Your task to perform on an android device: turn on location history Image 0: 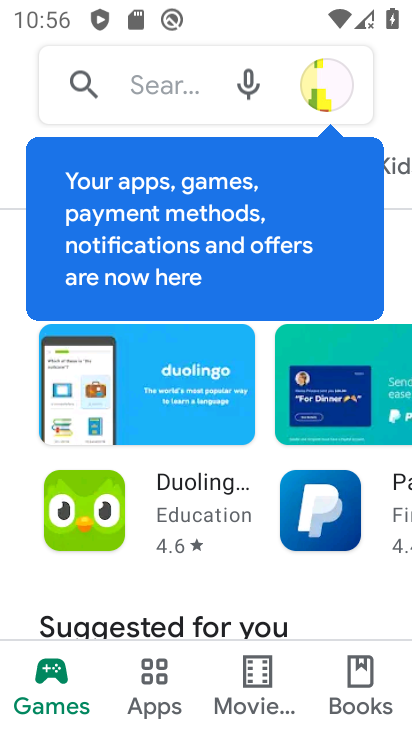
Step 0: press home button
Your task to perform on an android device: turn on location history Image 1: 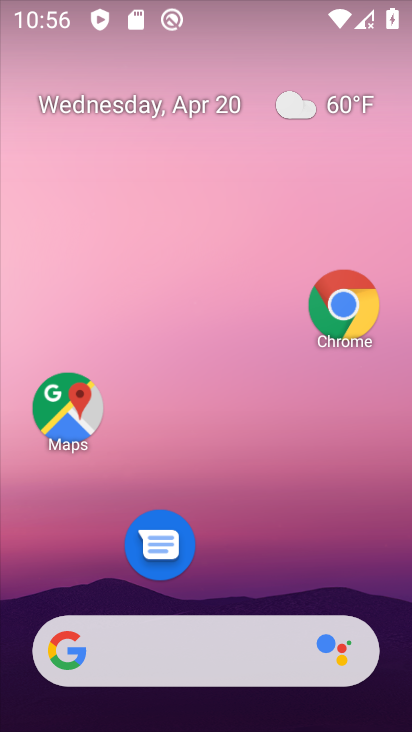
Step 1: drag from (245, 673) to (211, 205)
Your task to perform on an android device: turn on location history Image 2: 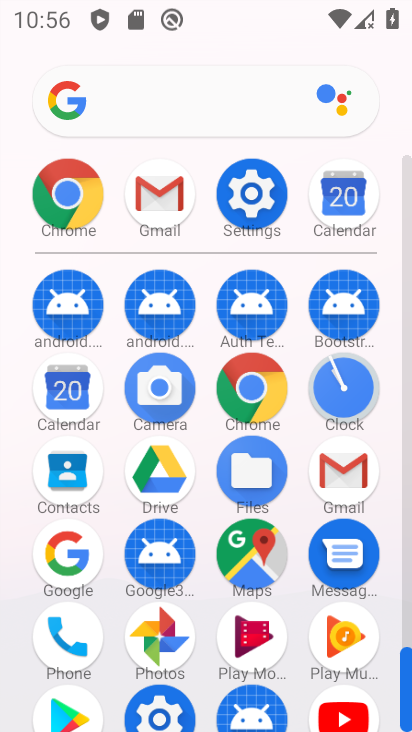
Step 2: click (252, 193)
Your task to perform on an android device: turn on location history Image 3: 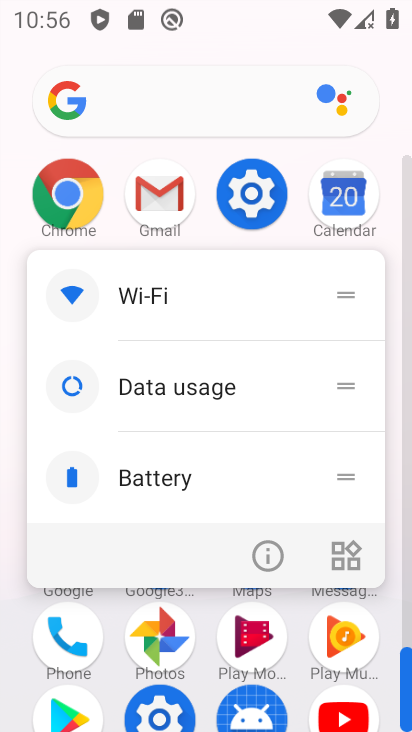
Step 3: click (250, 202)
Your task to perform on an android device: turn on location history Image 4: 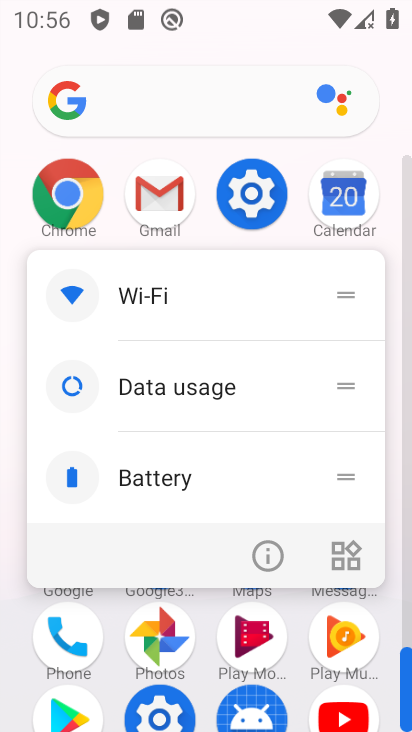
Step 4: click (256, 198)
Your task to perform on an android device: turn on location history Image 5: 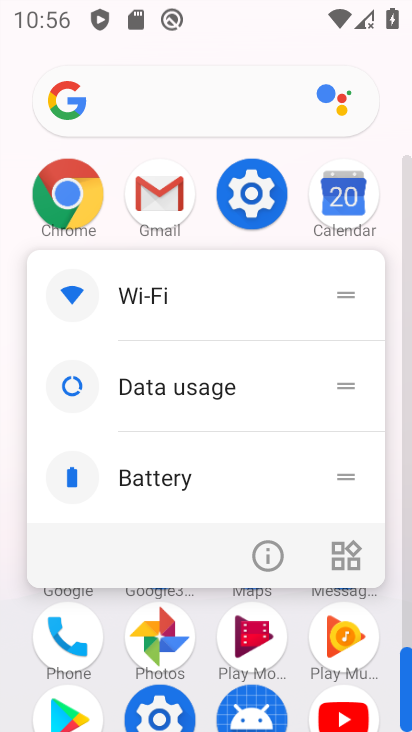
Step 5: click (266, 220)
Your task to perform on an android device: turn on location history Image 6: 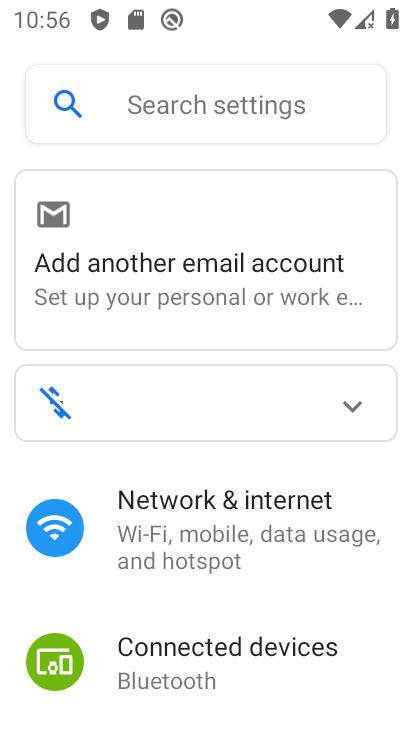
Step 6: drag from (193, 643) to (162, 276)
Your task to perform on an android device: turn on location history Image 7: 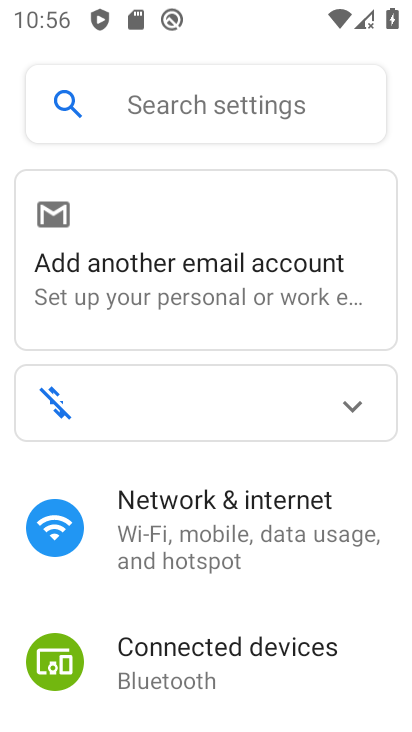
Step 7: drag from (223, 471) to (223, 198)
Your task to perform on an android device: turn on location history Image 8: 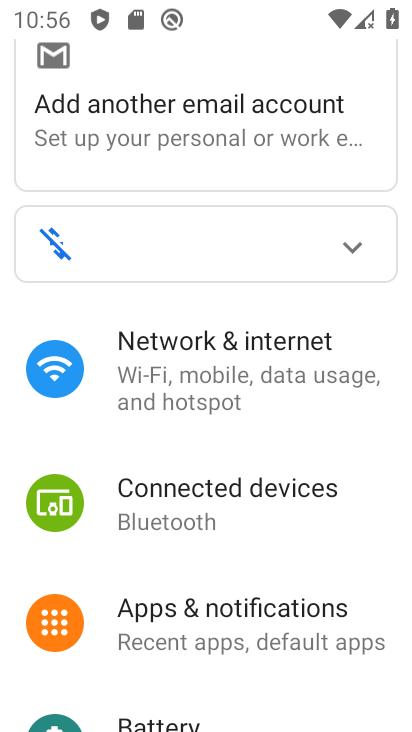
Step 8: drag from (221, 513) to (216, 242)
Your task to perform on an android device: turn on location history Image 9: 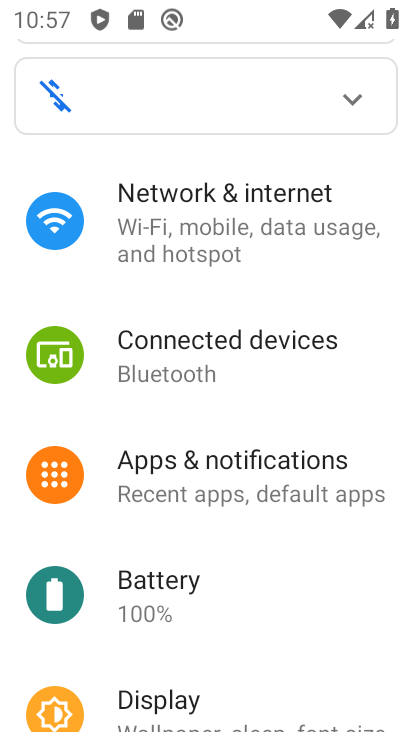
Step 9: drag from (180, 590) to (191, 287)
Your task to perform on an android device: turn on location history Image 10: 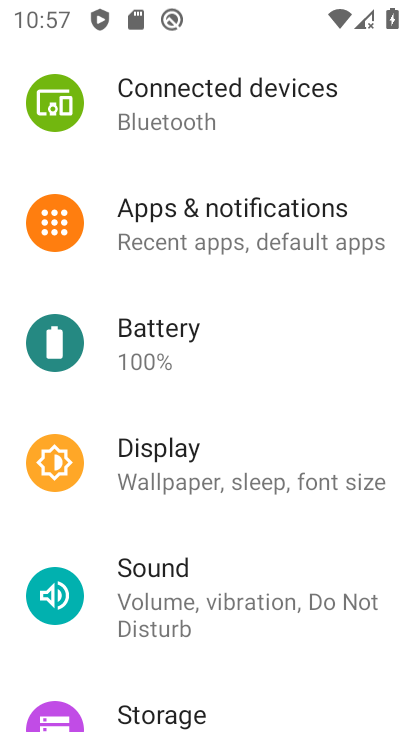
Step 10: drag from (193, 560) to (210, 303)
Your task to perform on an android device: turn on location history Image 11: 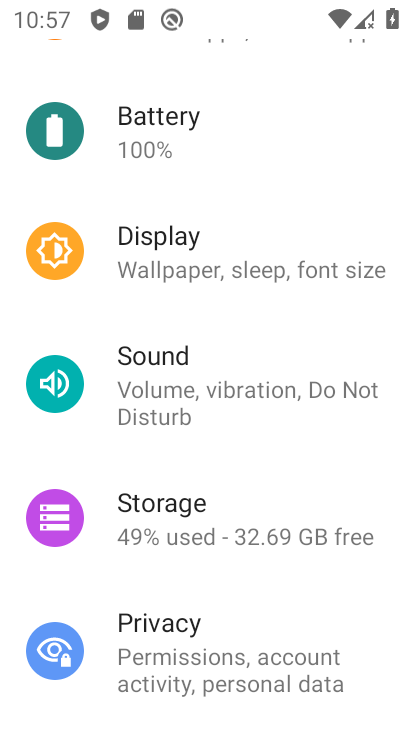
Step 11: drag from (192, 527) to (209, 232)
Your task to perform on an android device: turn on location history Image 12: 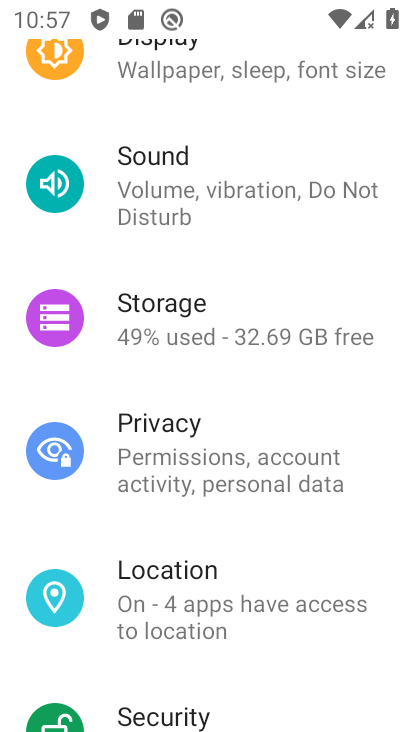
Step 12: click (176, 584)
Your task to perform on an android device: turn on location history Image 13: 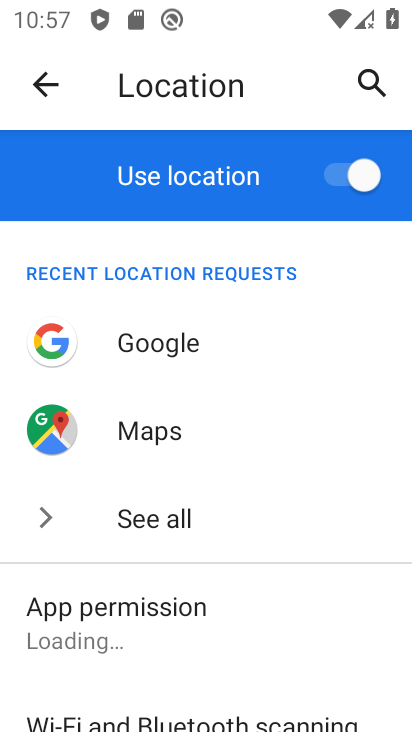
Step 13: drag from (212, 597) to (221, 276)
Your task to perform on an android device: turn on location history Image 14: 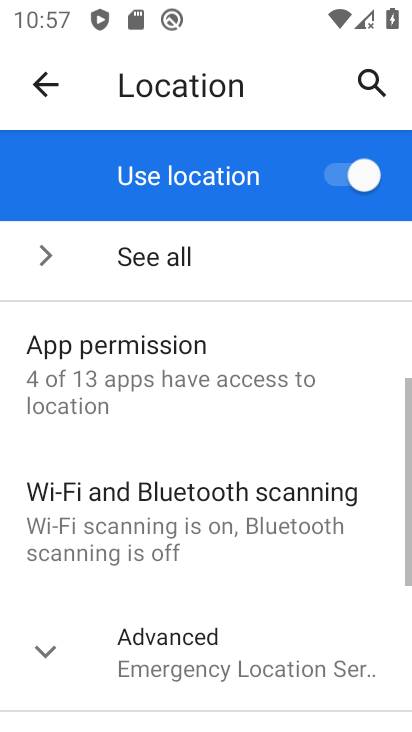
Step 14: click (210, 652)
Your task to perform on an android device: turn on location history Image 15: 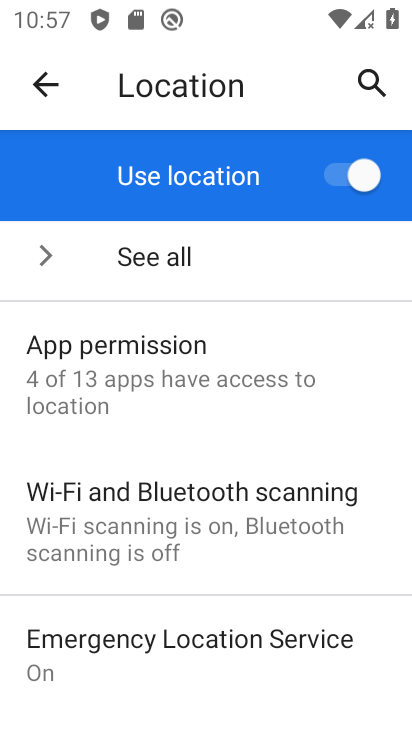
Step 15: drag from (236, 570) to (236, 262)
Your task to perform on an android device: turn on location history Image 16: 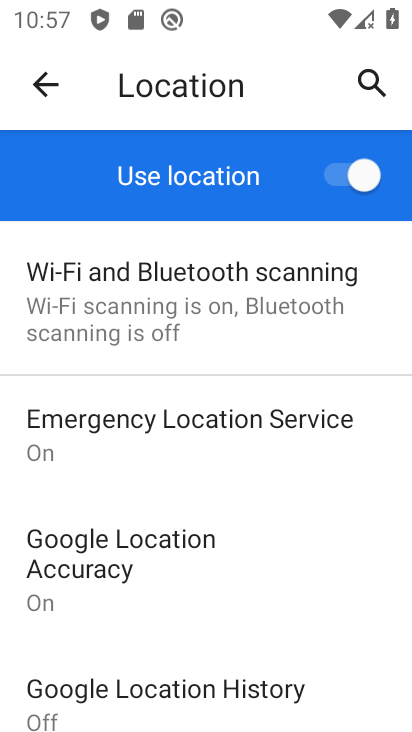
Step 16: click (258, 704)
Your task to perform on an android device: turn on location history Image 17: 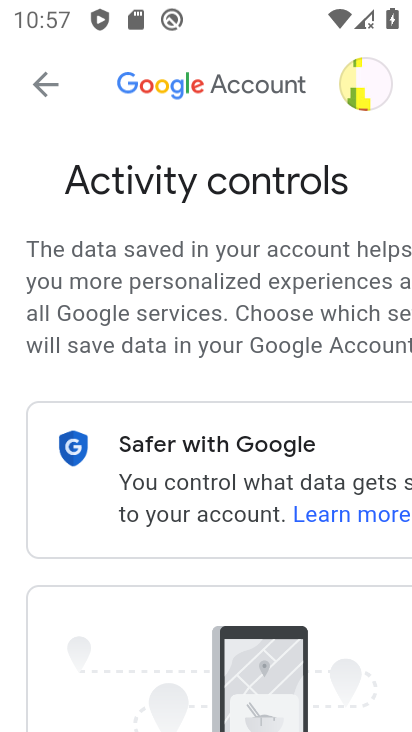
Step 17: drag from (202, 566) to (79, 248)
Your task to perform on an android device: turn on location history Image 18: 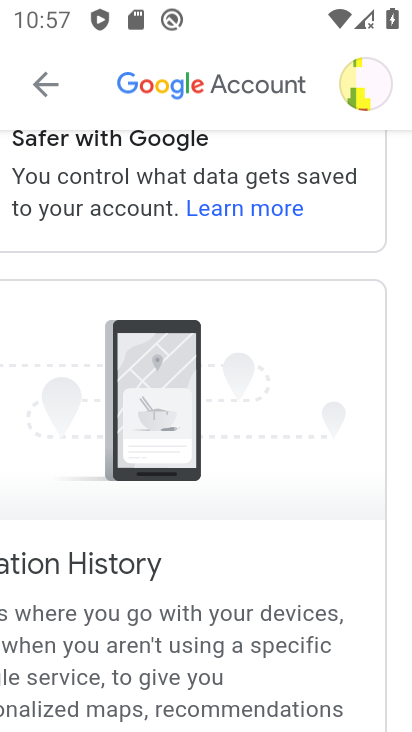
Step 18: drag from (334, 590) to (252, 358)
Your task to perform on an android device: turn on location history Image 19: 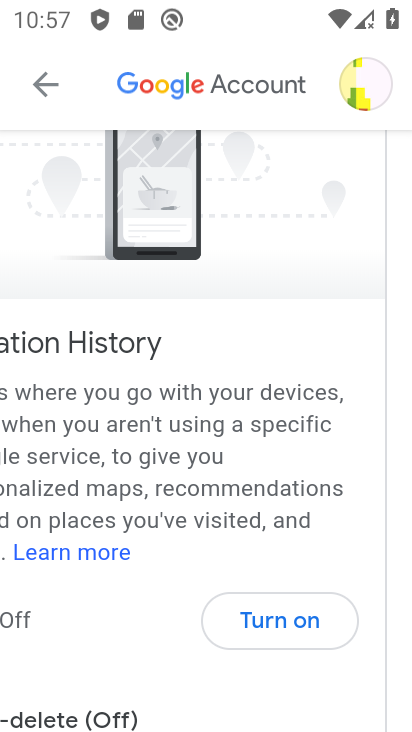
Step 19: click (287, 620)
Your task to perform on an android device: turn on location history Image 20: 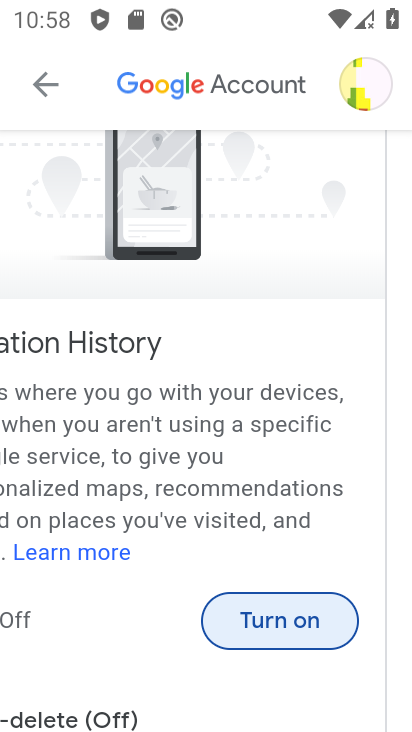
Step 20: click (314, 621)
Your task to perform on an android device: turn on location history Image 21: 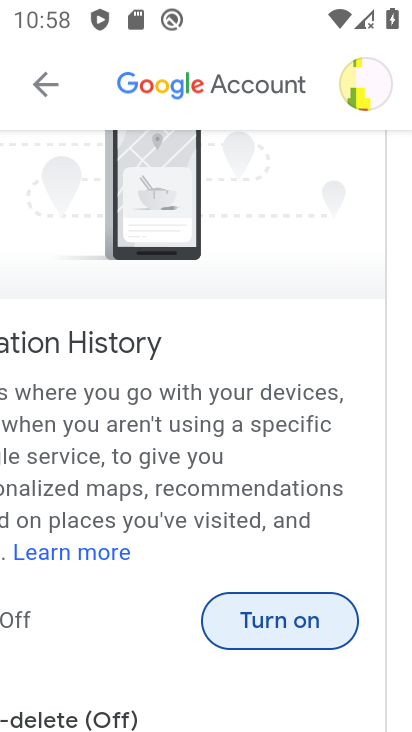
Step 21: click (294, 620)
Your task to perform on an android device: turn on location history Image 22: 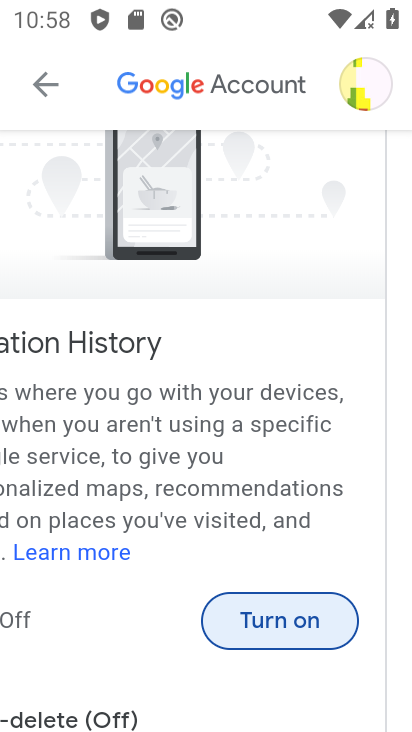
Step 22: click (286, 638)
Your task to perform on an android device: turn on location history Image 23: 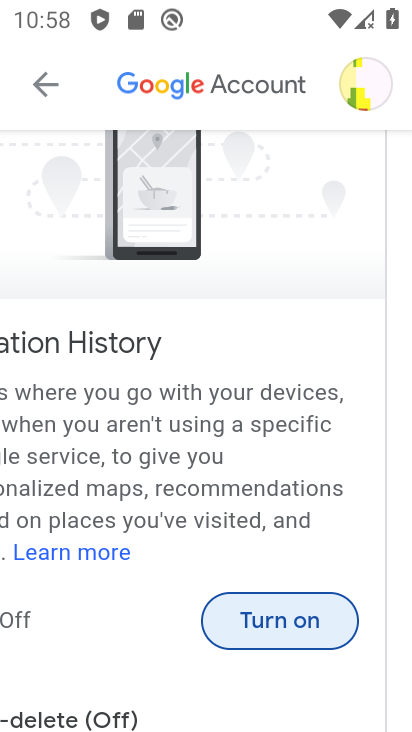
Step 23: click (298, 607)
Your task to perform on an android device: turn on location history Image 24: 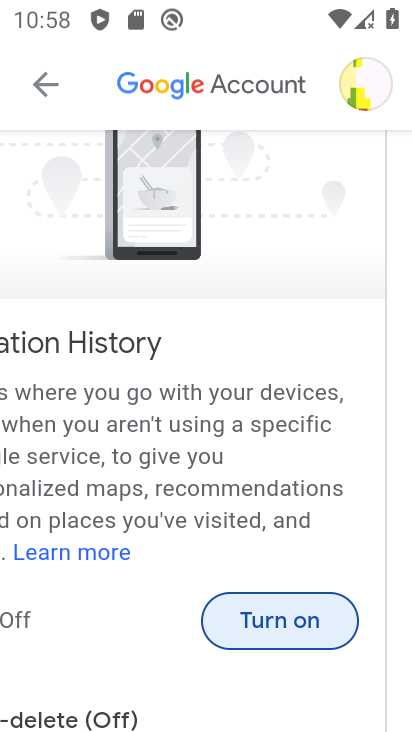
Step 24: click (292, 626)
Your task to perform on an android device: turn on location history Image 25: 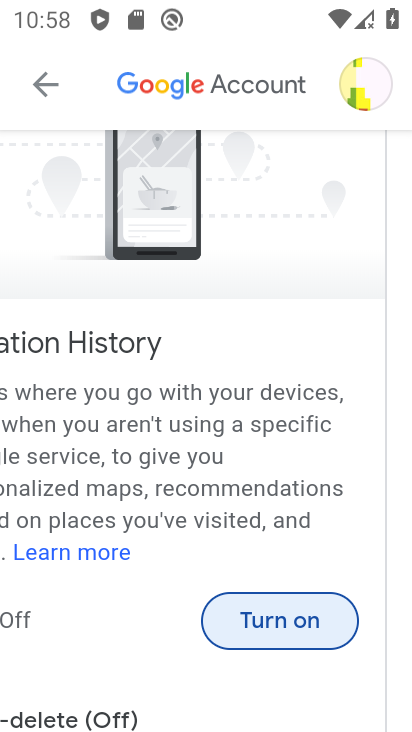
Step 25: click (292, 626)
Your task to perform on an android device: turn on location history Image 26: 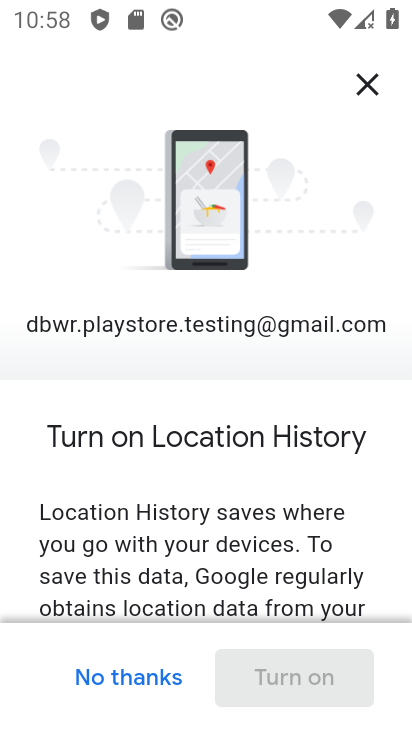
Step 26: drag from (279, 497) to (272, 111)
Your task to perform on an android device: turn on location history Image 27: 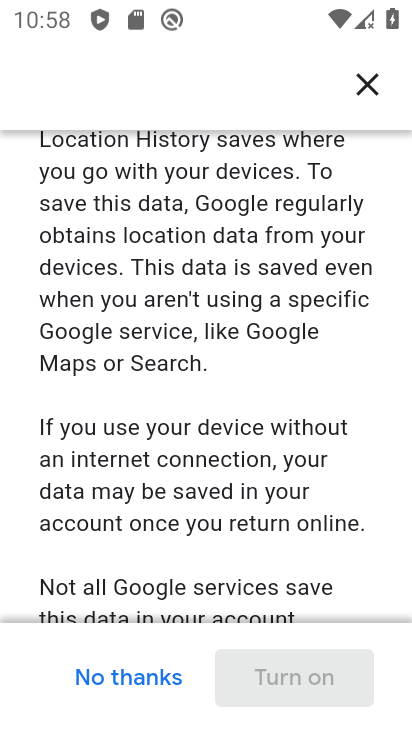
Step 27: drag from (277, 359) to (269, 57)
Your task to perform on an android device: turn on location history Image 28: 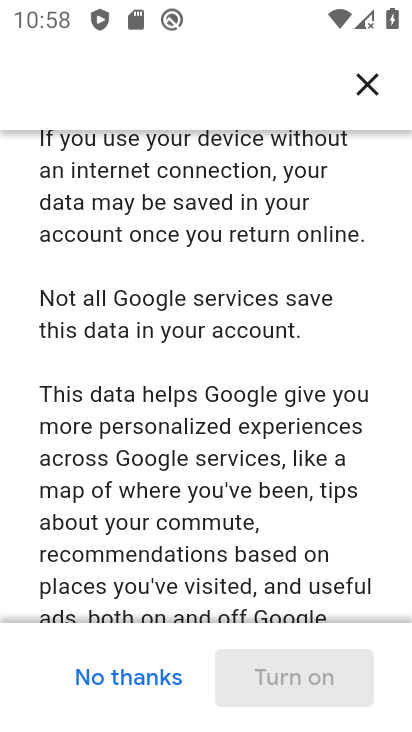
Step 28: drag from (263, 484) to (228, 119)
Your task to perform on an android device: turn on location history Image 29: 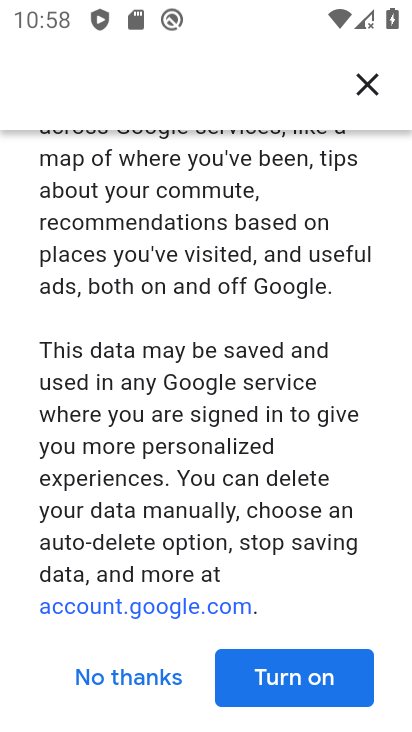
Step 29: click (287, 717)
Your task to perform on an android device: turn on location history Image 30: 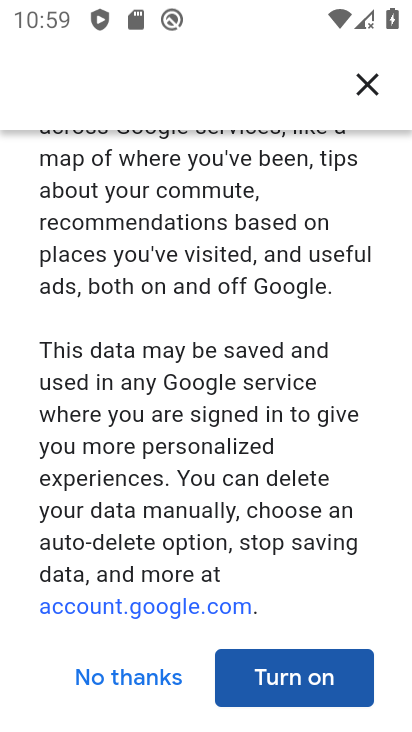
Step 30: click (305, 679)
Your task to perform on an android device: turn on location history Image 31: 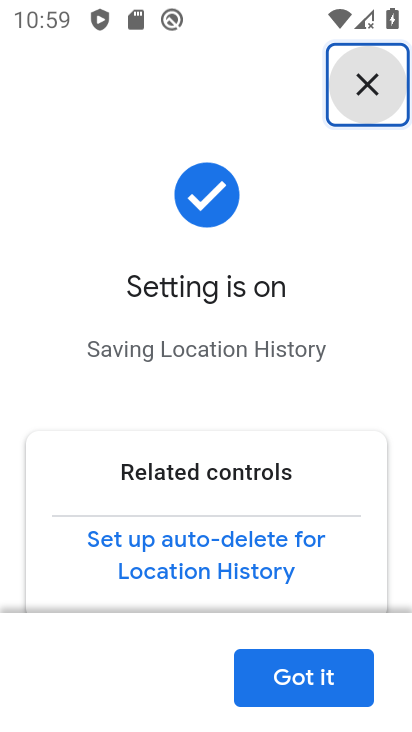
Step 31: click (318, 685)
Your task to perform on an android device: turn on location history Image 32: 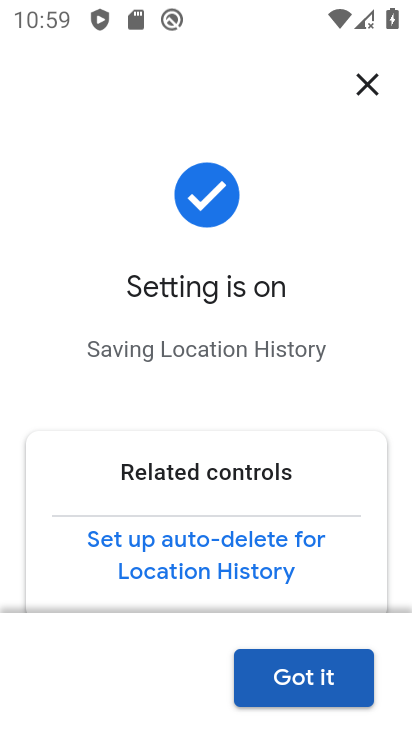
Step 32: click (331, 672)
Your task to perform on an android device: turn on location history Image 33: 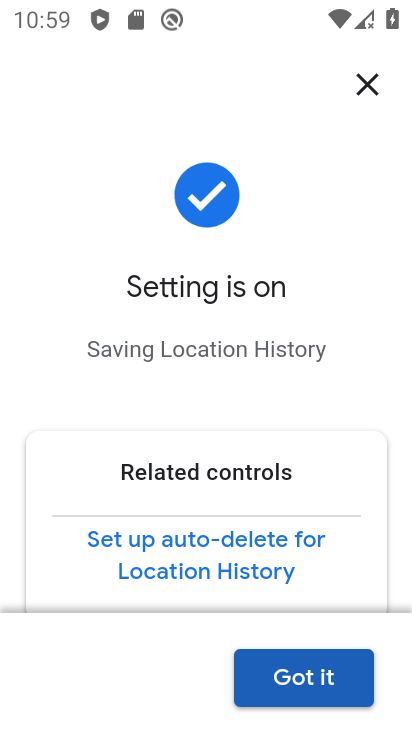
Step 33: click (334, 684)
Your task to perform on an android device: turn on location history Image 34: 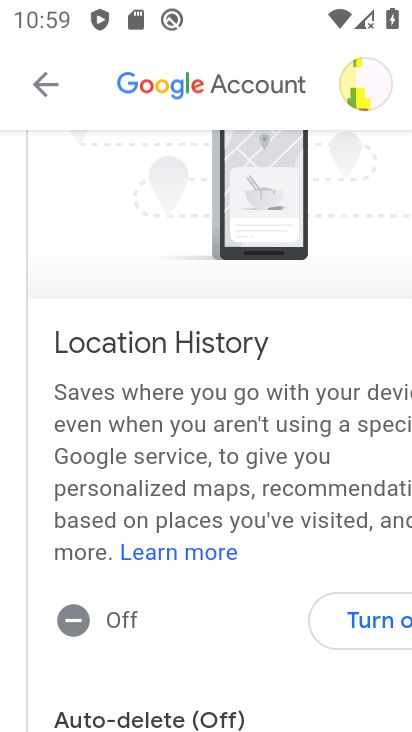
Step 34: click (342, 597)
Your task to perform on an android device: turn on location history Image 35: 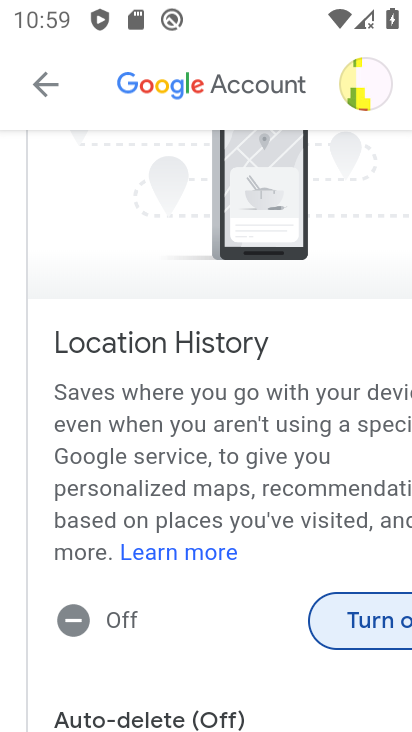
Step 35: click (369, 630)
Your task to perform on an android device: turn on location history Image 36: 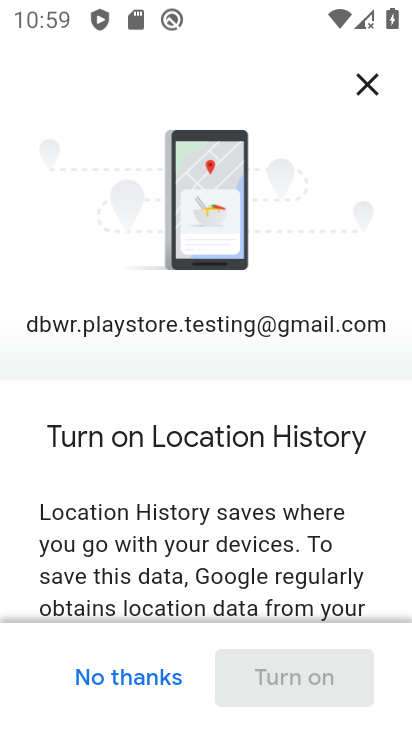
Step 36: drag from (288, 499) to (290, 132)
Your task to perform on an android device: turn on location history Image 37: 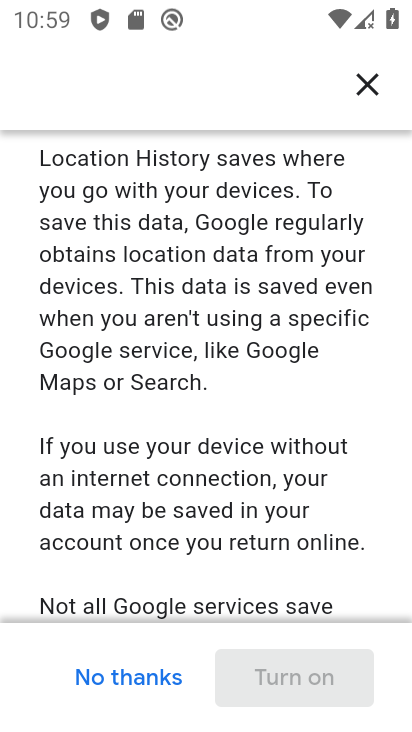
Step 37: drag from (297, 517) to (307, 167)
Your task to perform on an android device: turn on location history Image 38: 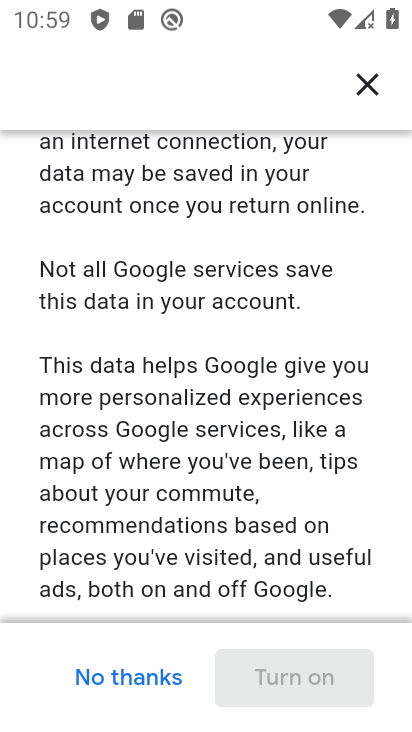
Step 38: drag from (314, 492) to (293, 246)
Your task to perform on an android device: turn on location history Image 39: 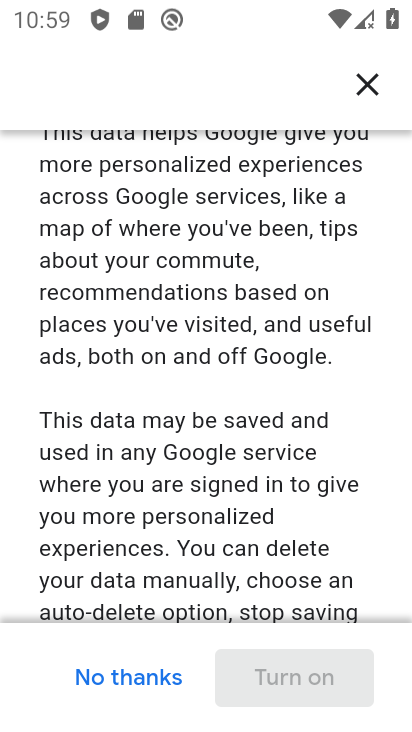
Step 39: drag from (279, 474) to (250, 157)
Your task to perform on an android device: turn on location history Image 40: 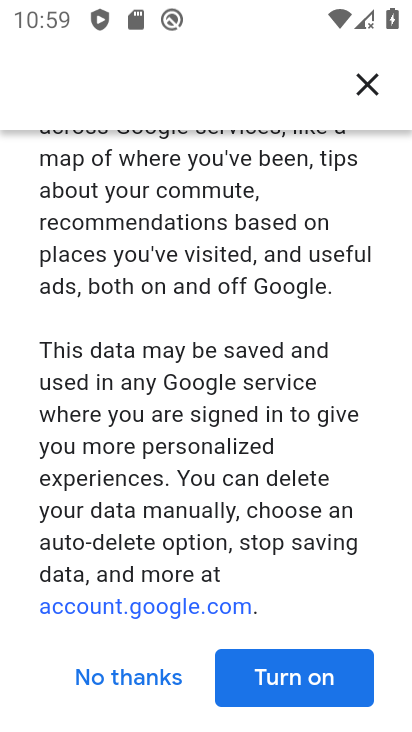
Step 40: click (331, 679)
Your task to perform on an android device: turn on location history Image 41: 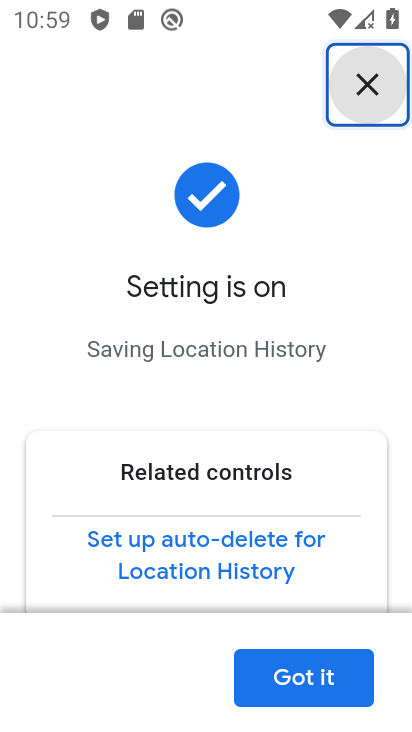
Step 41: click (322, 684)
Your task to perform on an android device: turn on location history Image 42: 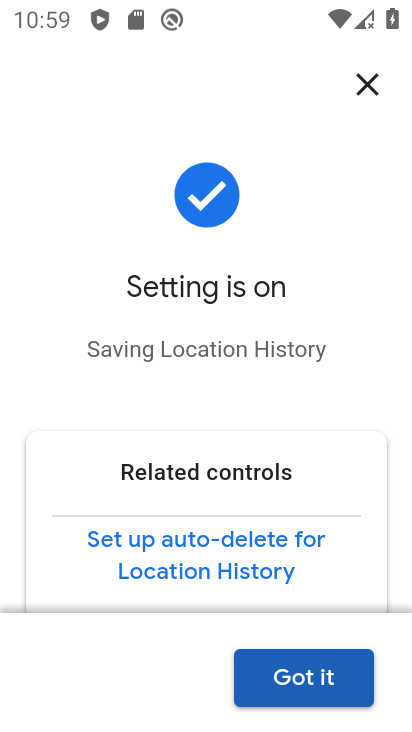
Step 42: click (329, 679)
Your task to perform on an android device: turn on location history Image 43: 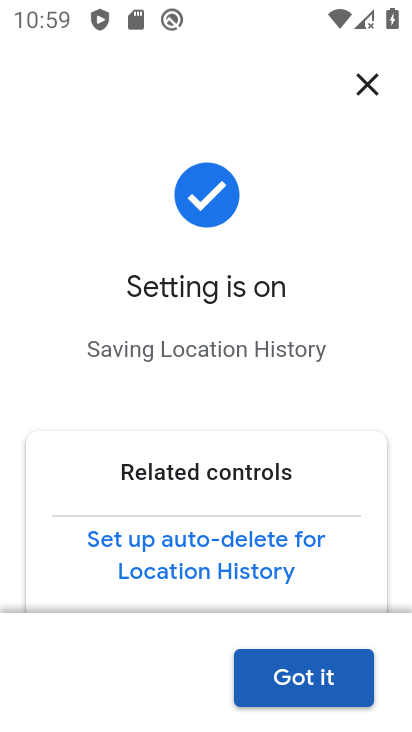
Step 43: task complete